Your task to perform on an android device: set the stopwatch Image 0: 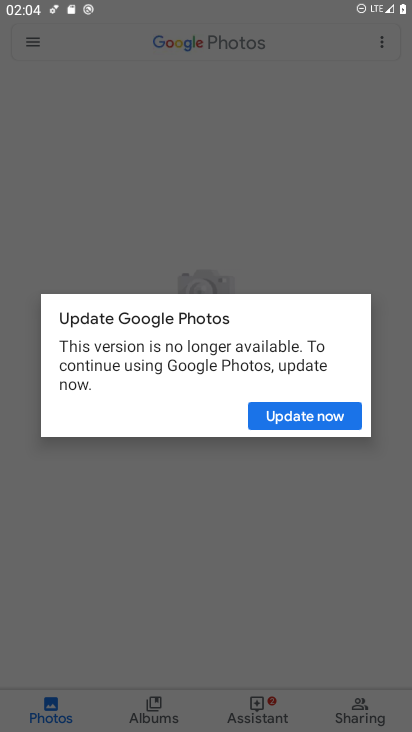
Step 0: press home button
Your task to perform on an android device: set the stopwatch Image 1: 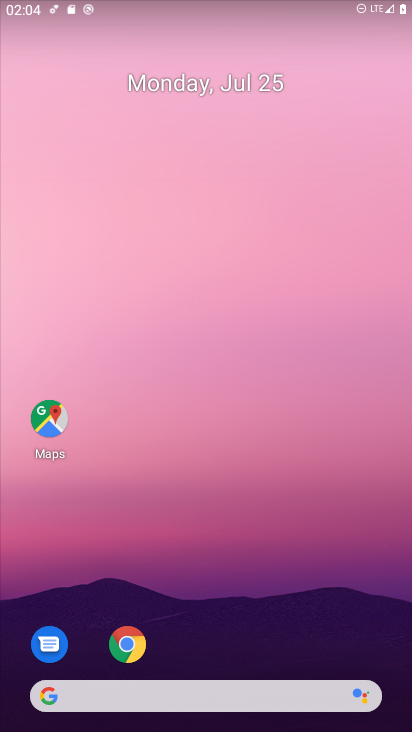
Step 1: drag from (214, 722) to (210, 241)
Your task to perform on an android device: set the stopwatch Image 2: 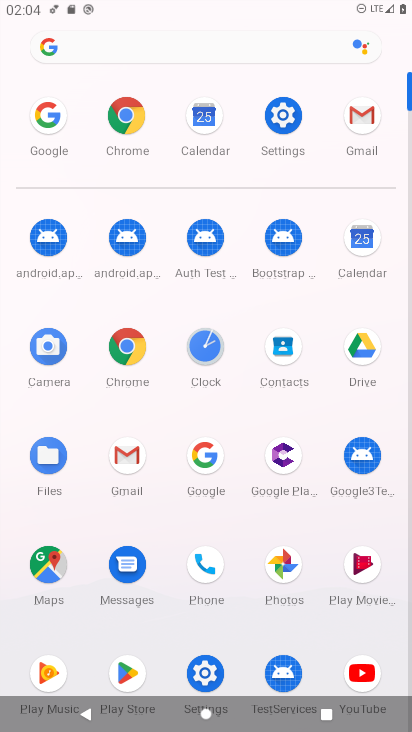
Step 2: click (204, 346)
Your task to perform on an android device: set the stopwatch Image 3: 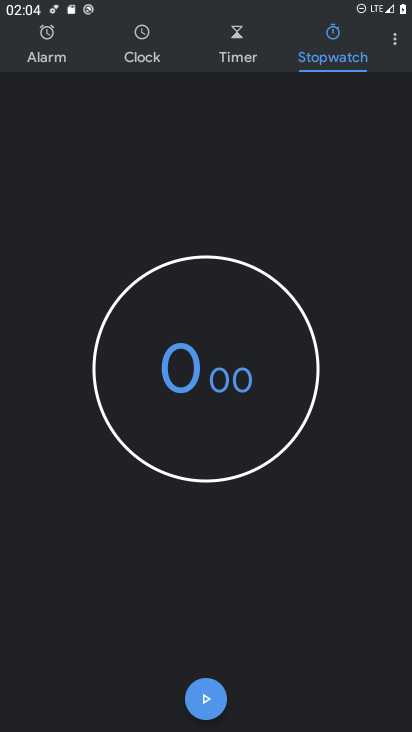
Step 3: task complete